Your task to perform on an android device: toggle show notifications on the lock screen Image 0: 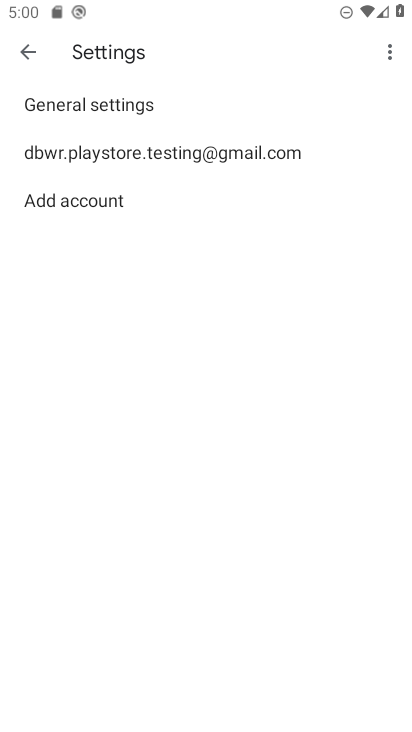
Step 0: press home button
Your task to perform on an android device: toggle show notifications on the lock screen Image 1: 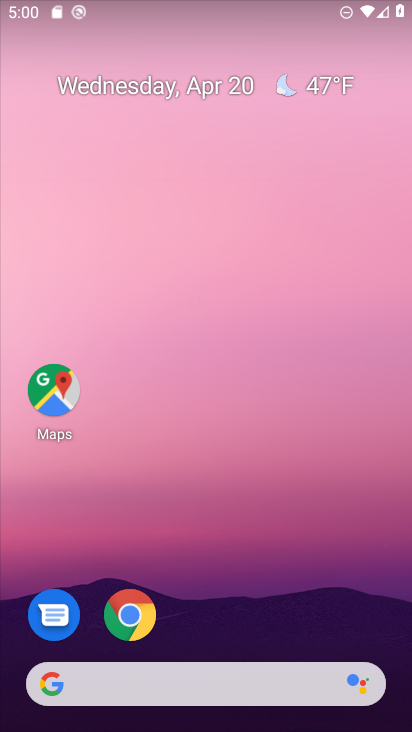
Step 1: drag from (250, 535) to (248, 36)
Your task to perform on an android device: toggle show notifications on the lock screen Image 2: 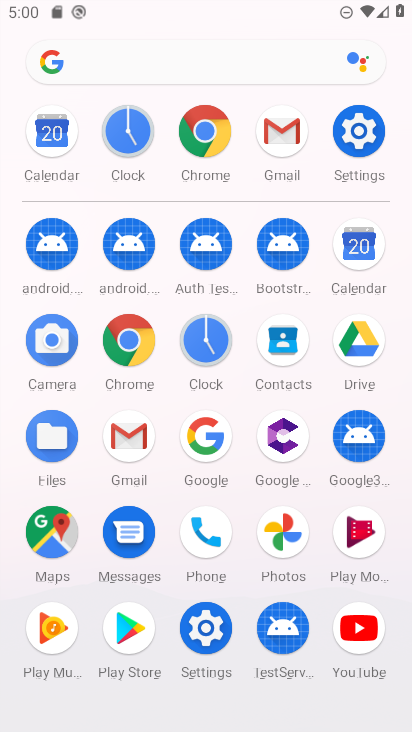
Step 2: click (354, 125)
Your task to perform on an android device: toggle show notifications on the lock screen Image 3: 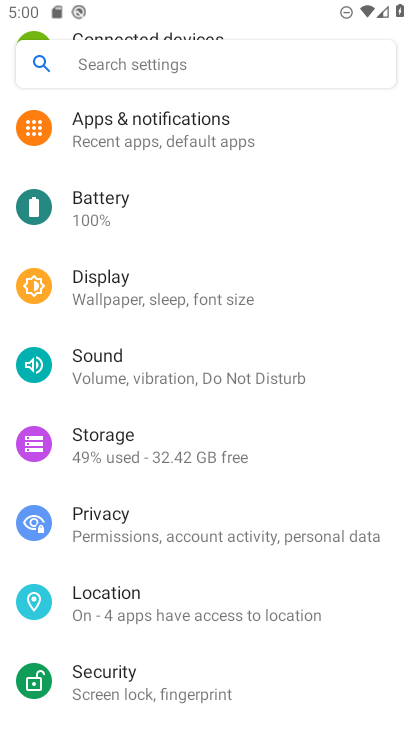
Step 3: click (200, 136)
Your task to perform on an android device: toggle show notifications on the lock screen Image 4: 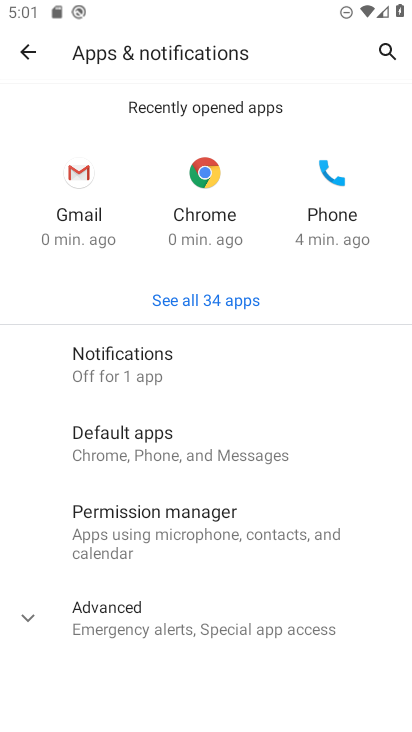
Step 4: click (191, 372)
Your task to perform on an android device: toggle show notifications on the lock screen Image 5: 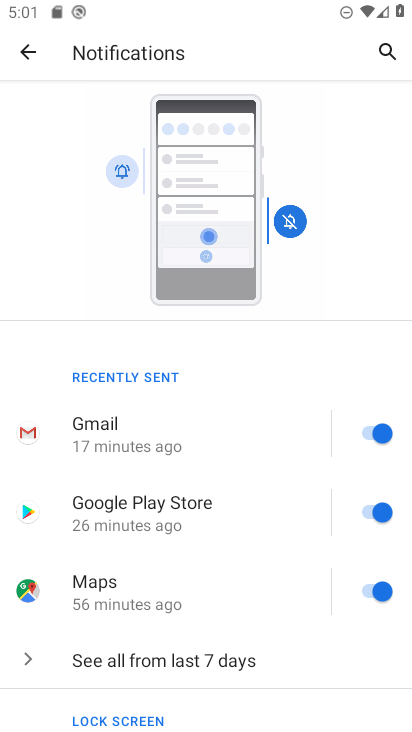
Step 5: drag from (230, 656) to (220, 271)
Your task to perform on an android device: toggle show notifications on the lock screen Image 6: 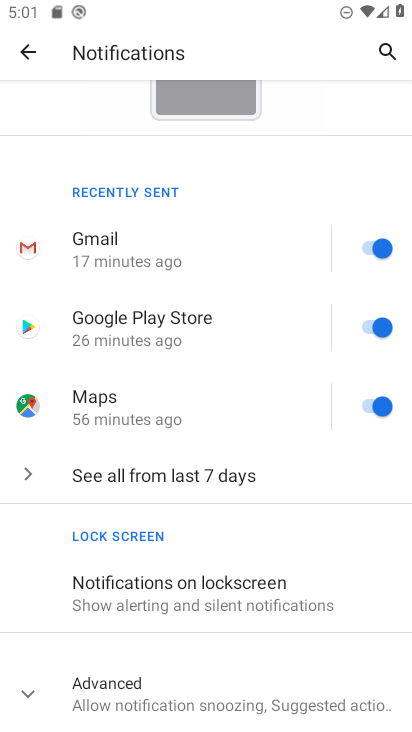
Step 6: click (202, 600)
Your task to perform on an android device: toggle show notifications on the lock screen Image 7: 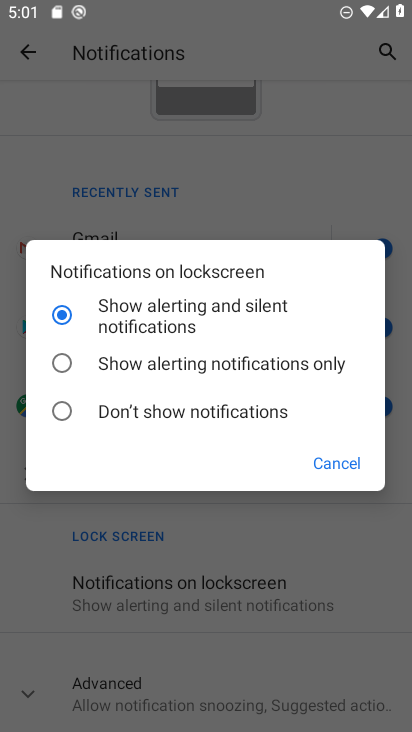
Step 7: click (64, 364)
Your task to perform on an android device: toggle show notifications on the lock screen Image 8: 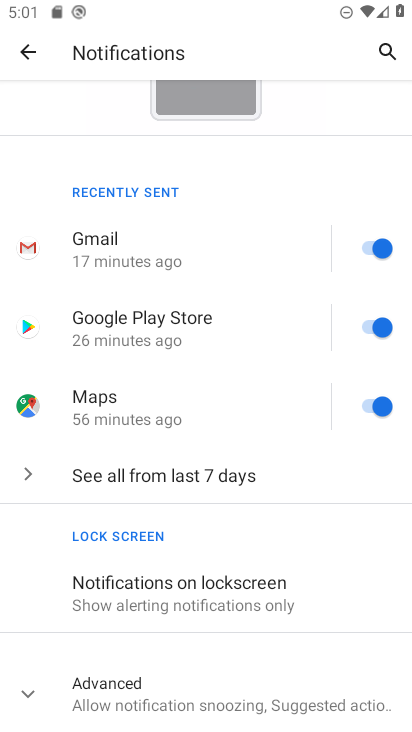
Step 8: task complete